Your task to perform on an android device: turn on the 24-hour format for clock Image 0: 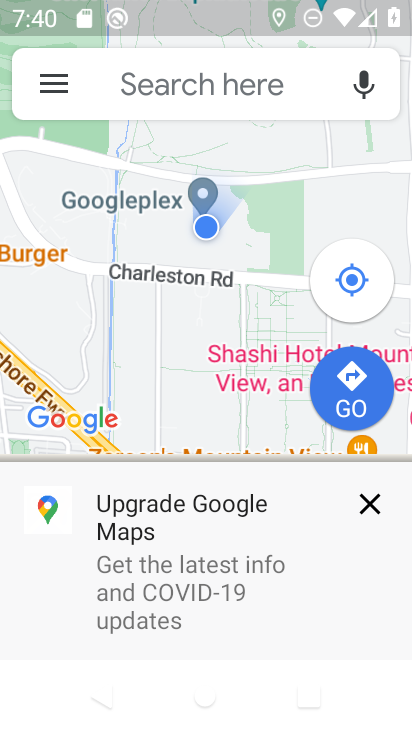
Step 0: press home button
Your task to perform on an android device: turn on the 24-hour format for clock Image 1: 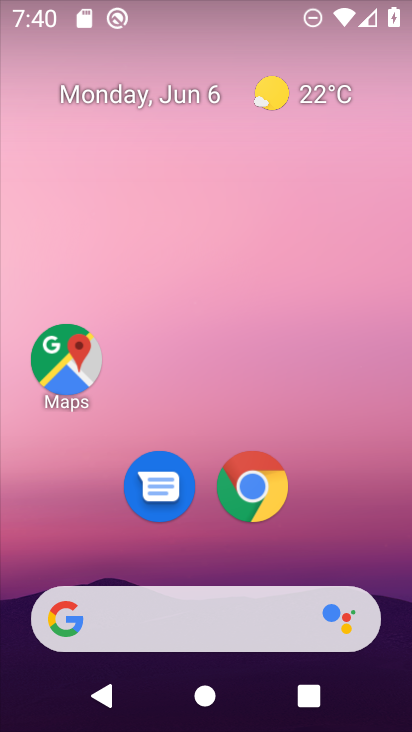
Step 1: drag from (412, 620) to (207, 24)
Your task to perform on an android device: turn on the 24-hour format for clock Image 2: 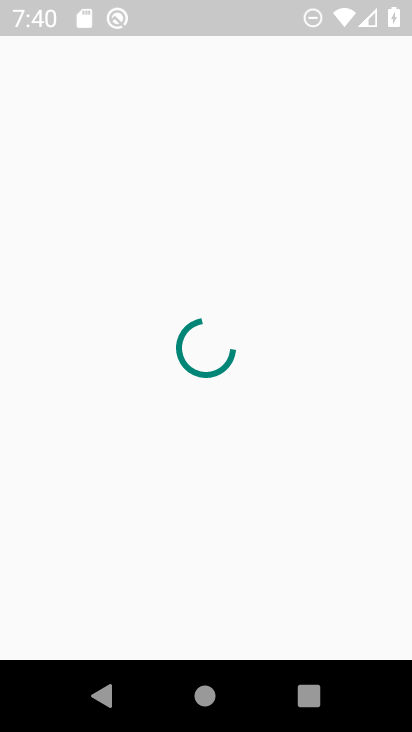
Step 2: click (365, 414)
Your task to perform on an android device: turn on the 24-hour format for clock Image 3: 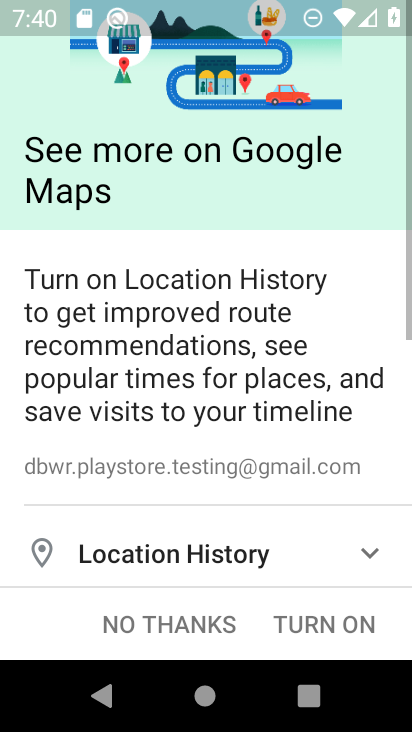
Step 3: press home button
Your task to perform on an android device: turn on the 24-hour format for clock Image 4: 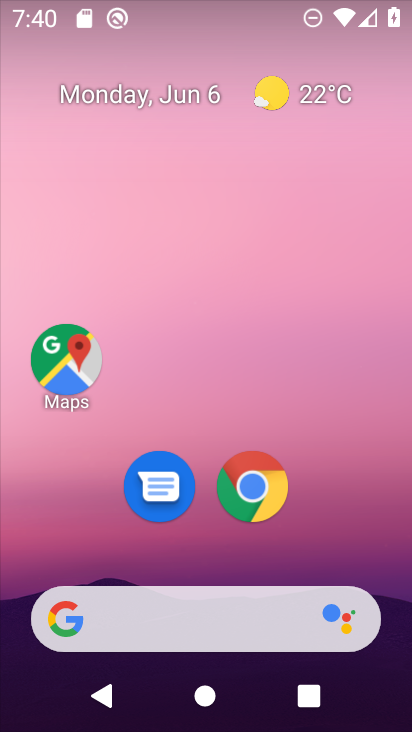
Step 4: drag from (412, 619) to (229, 18)
Your task to perform on an android device: turn on the 24-hour format for clock Image 5: 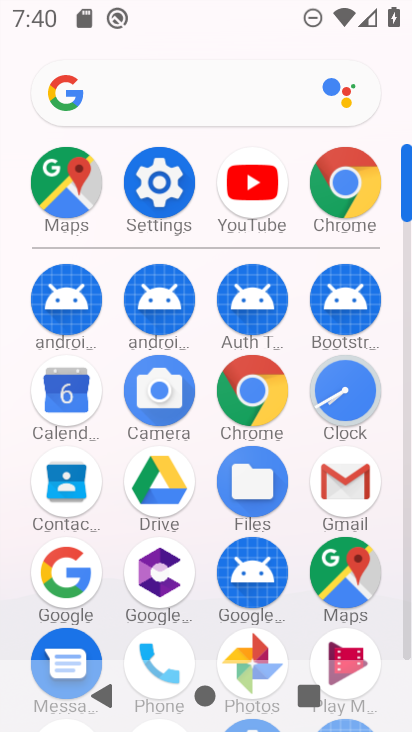
Step 5: click (337, 397)
Your task to perform on an android device: turn on the 24-hour format for clock Image 6: 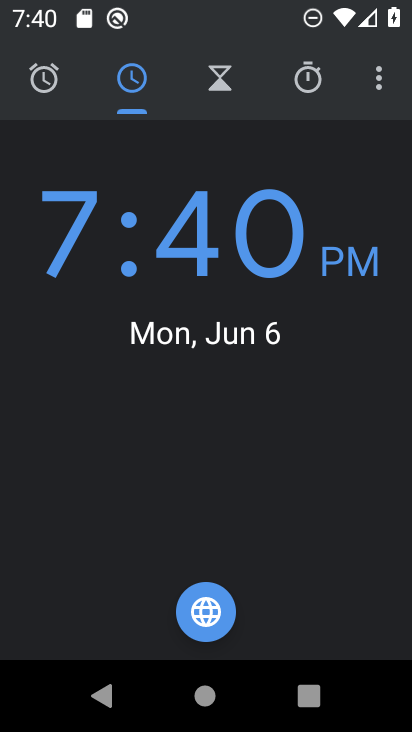
Step 6: click (367, 79)
Your task to perform on an android device: turn on the 24-hour format for clock Image 7: 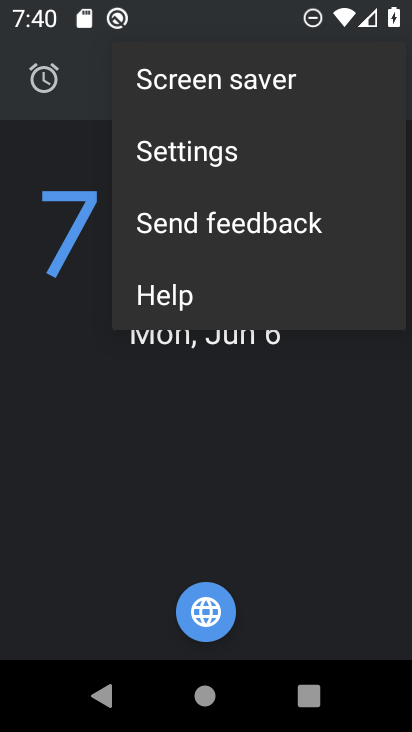
Step 7: click (260, 158)
Your task to perform on an android device: turn on the 24-hour format for clock Image 8: 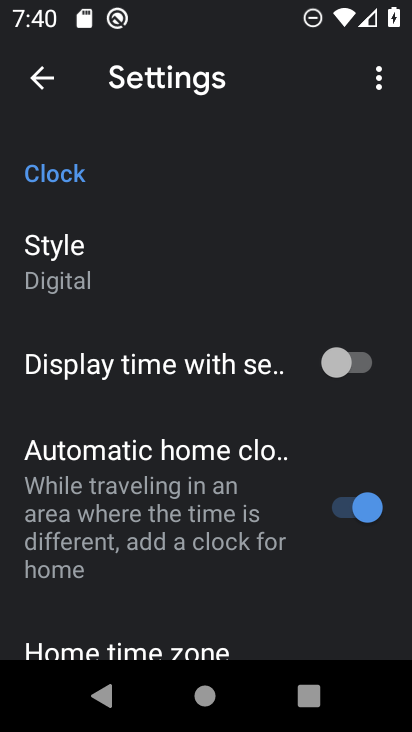
Step 8: drag from (233, 589) to (185, 219)
Your task to perform on an android device: turn on the 24-hour format for clock Image 9: 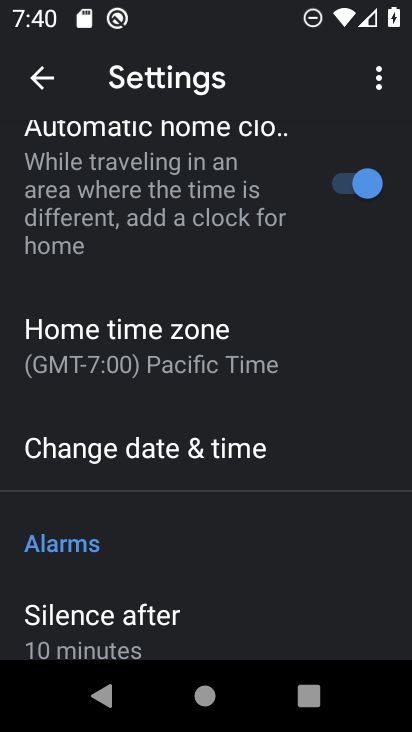
Step 9: click (175, 463)
Your task to perform on an android device: turn on the 24-hour format for clock Image 10: 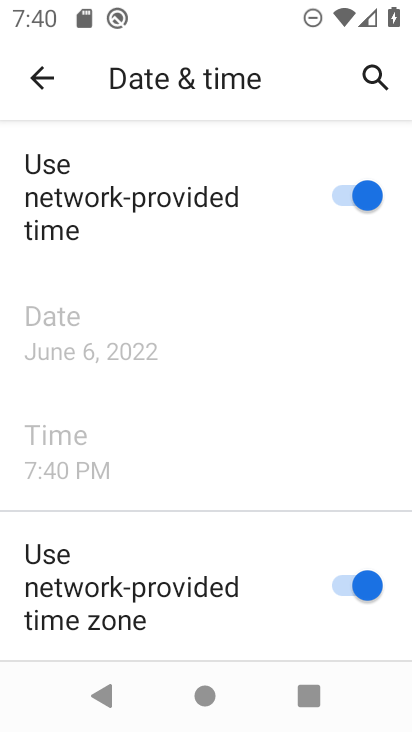
Step 10: click (150, 567)
Your task to perform on an android device: turn on the 24-hour format for clock Image 11: 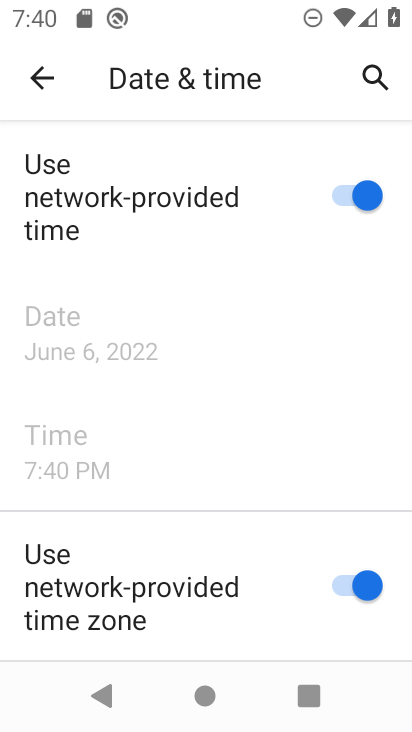
Step 11: drag from (162, 523) to (150, 248)
Your task to perform on an android device: turn on the 24-hour format for clock Image 12: 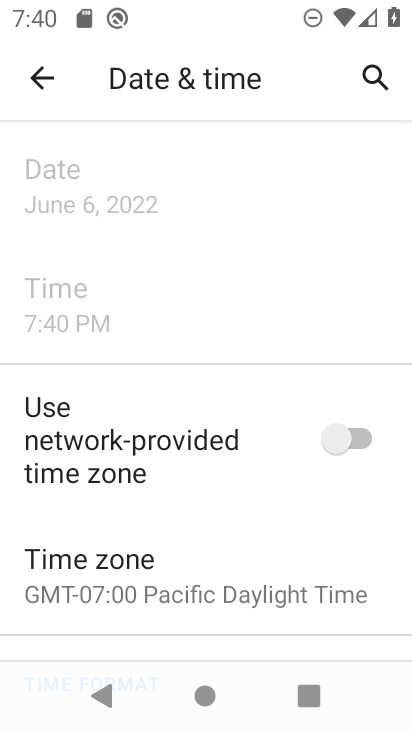
Step 12: click (290, 446)
Your task to perform on an android device: turn on the 24-hour format for clock Image 13: 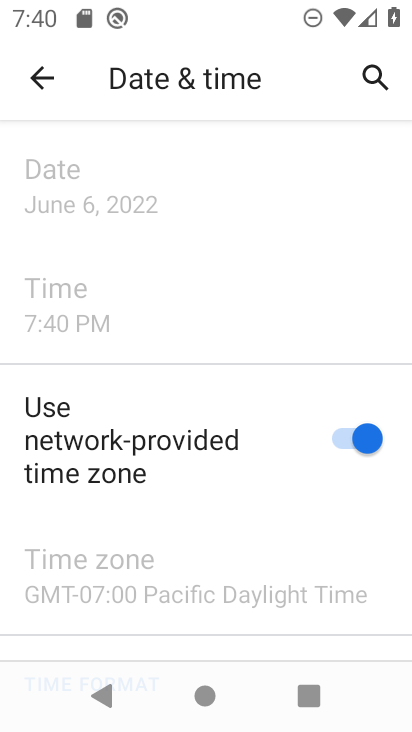
Step 13: task complete